Your task to perform on an android device: Open settings on Google Maps Image 0: 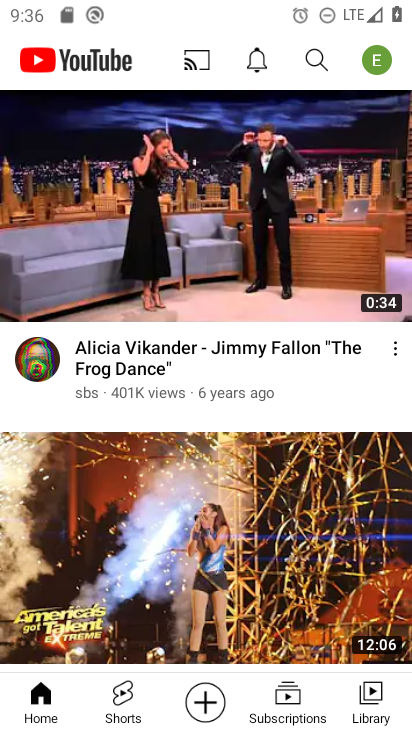
Step 0: press home button
Your task to perform on an android device: Open settings on Google Maps Image 1: 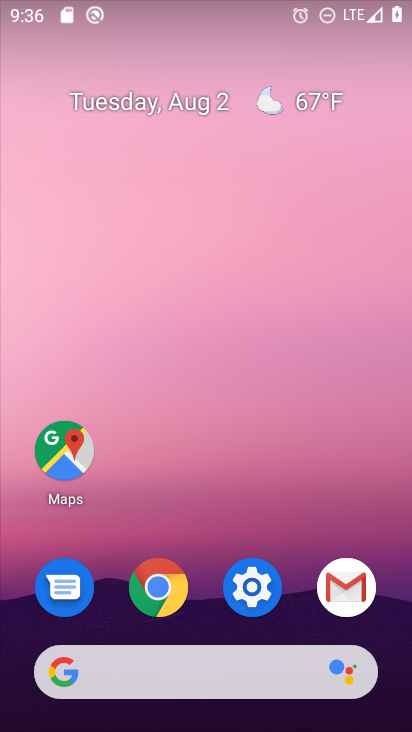
Step 1: click (67, 473)
Your task to perform on an android device: Open settings on Google Maps Image 2: 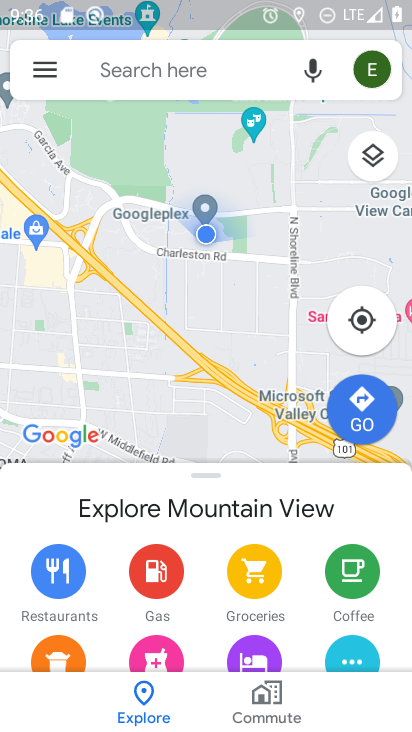
Step 2: click (61, 451)
Your task to perform on an android device: Open settings on Google Maps Image 3: 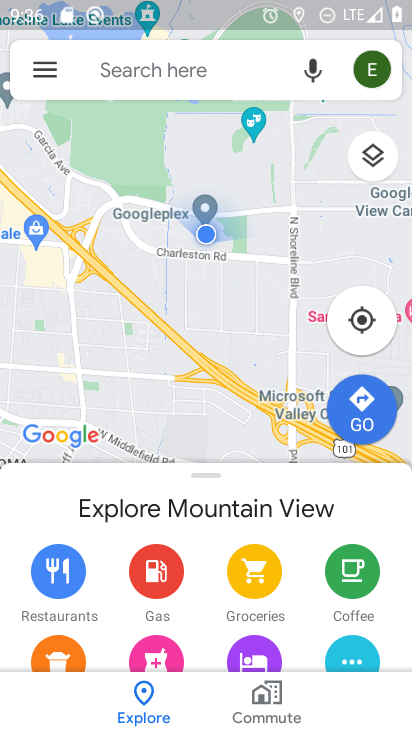
Step 3: click (338, 327)
Your task to perform on an android device: Open settings on Google Maps Image 4: 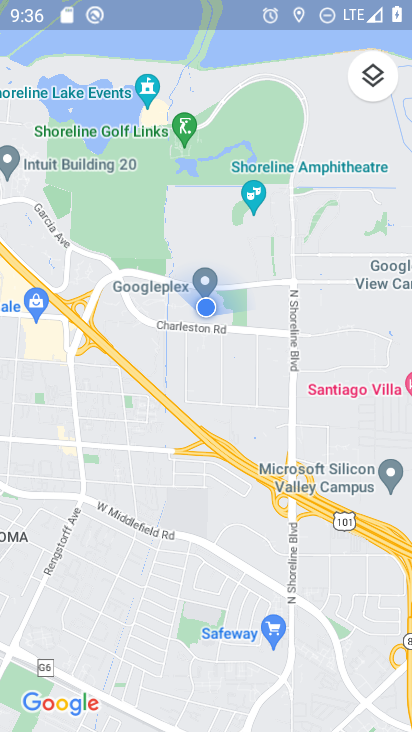
Step 4: click (47, 126)
Your task to perform on an android device: Open settings on Google Maps Image 5: 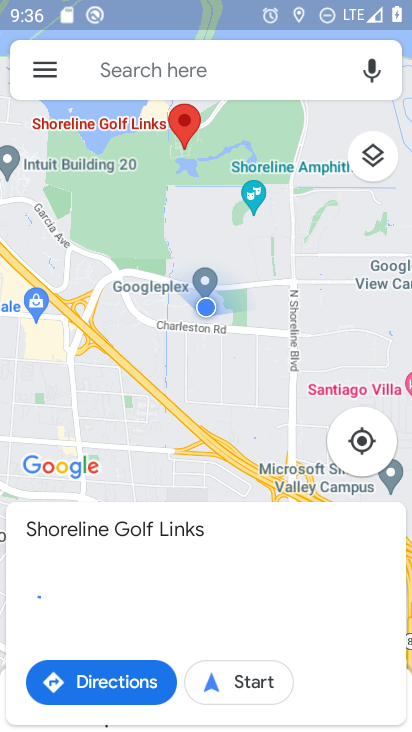
Step 5: click (43, 70)
Your task to perform on an android device: Open settings on Google Maps Image 6: 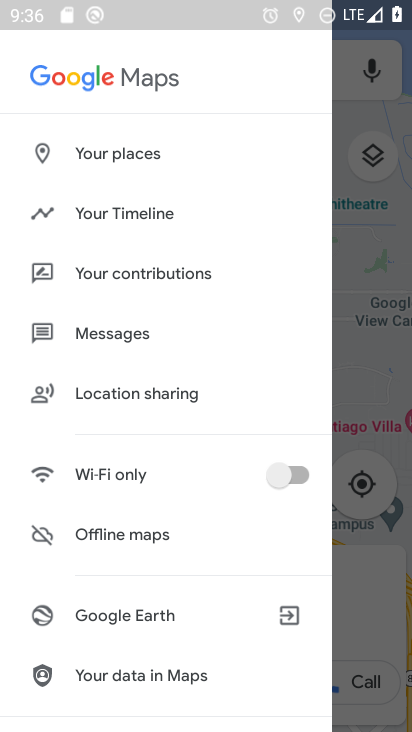
Step 6: drag from (134, 522) to (142, 296)
Your task to perform on an android device: Open settings on Google Maps Image 7: 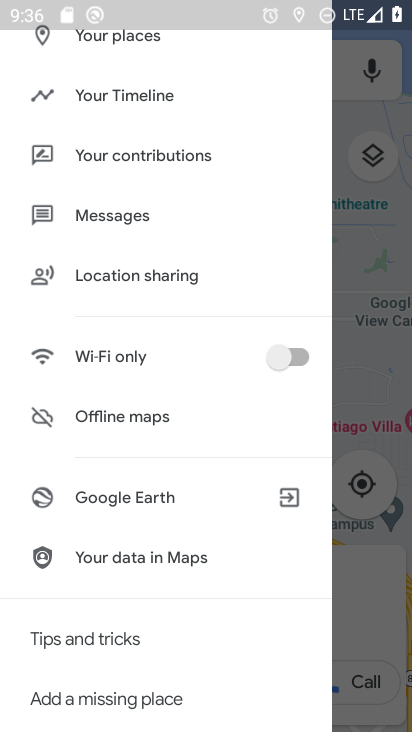
Step 7: drag from (107, 574) to (106, 343)
Your task to perform on an android device: Open settings on Google Maps Image 8: 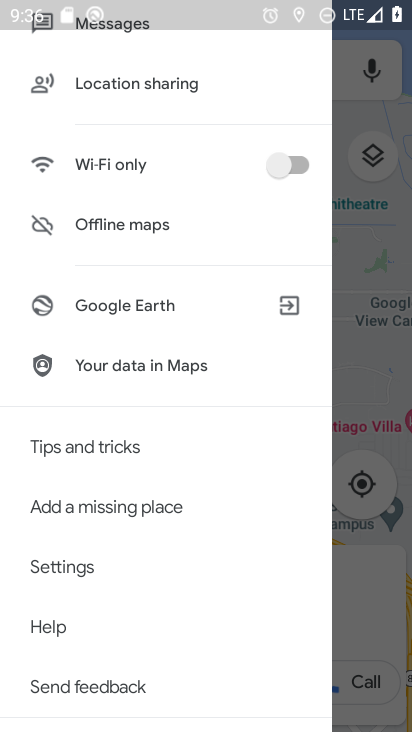
Step 8: click (70, 557)
Your task to perform on an android device: Open settings on Google Maps Image 9: 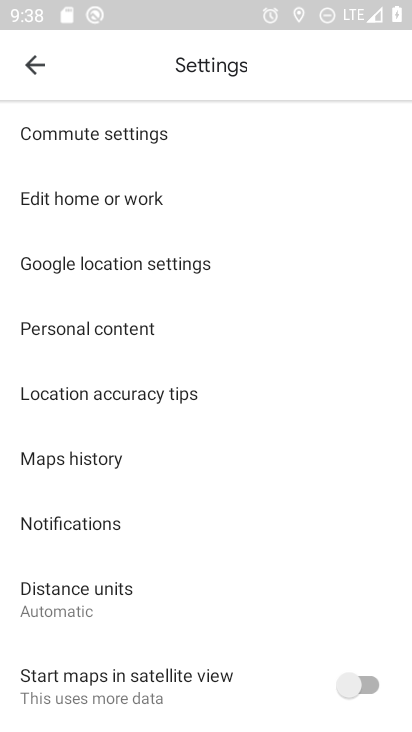
Step 9: task complete